Your task to perform on an android device: delete location history Image 0: 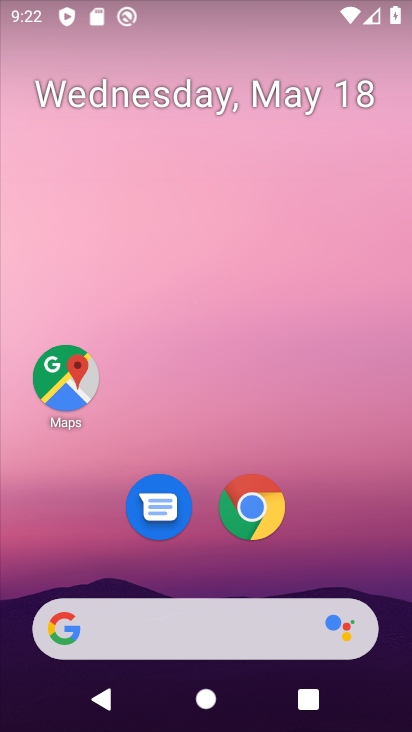
Step 0: drag from (331, 521) to (322, 87)
Your task to perform on an android device: delete location history Image 1: 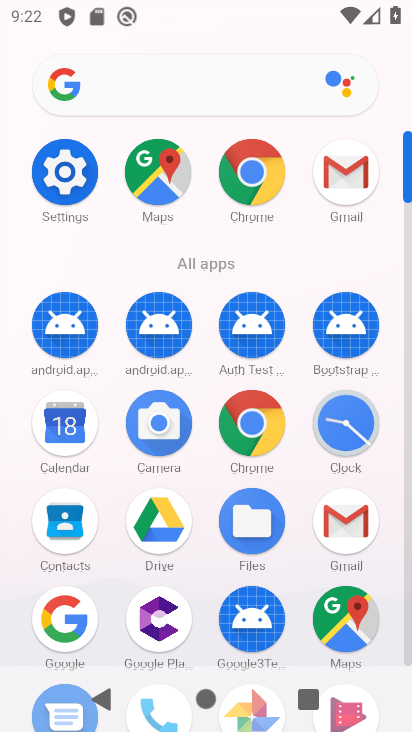
Step 1: click (123, 150)
Your task to perform on an android device: delete location history Image 2: 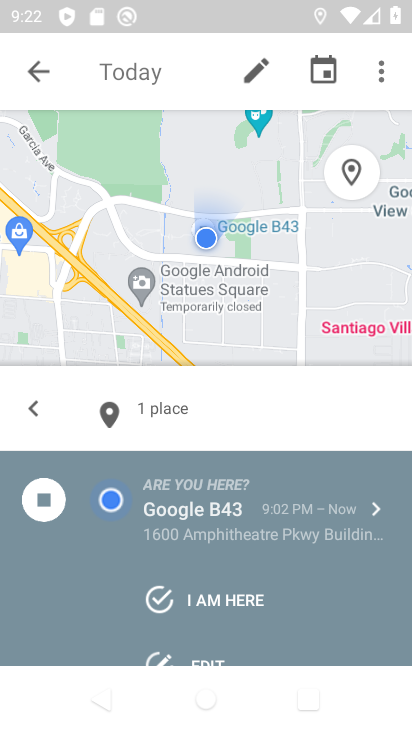
Step 2: click (44, 66)
Your task to perform on an android device: delete location history Image 3: 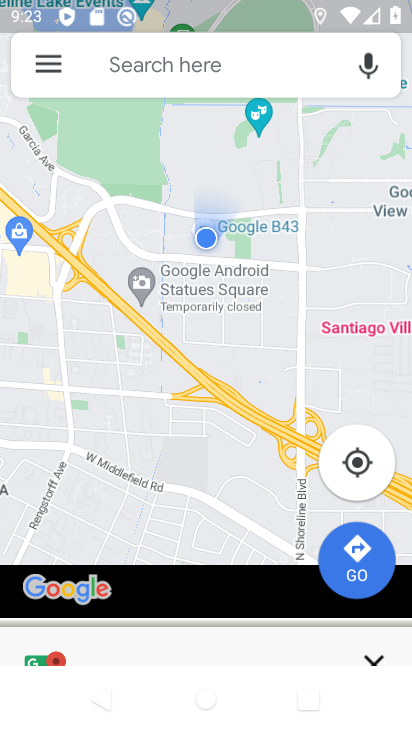
Step 3: click (44, 66)
Your task to perform on an android device: delete location history Image 4: 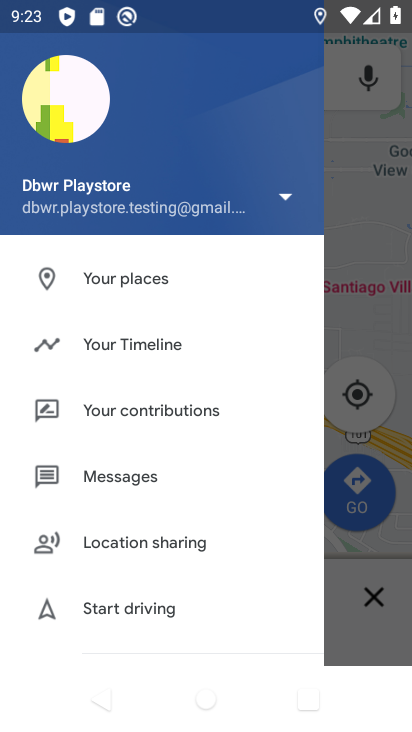
Step 4: drag from (163, 613) to (198, 36)
Your task to perform on an android device: delete location history Image 5: 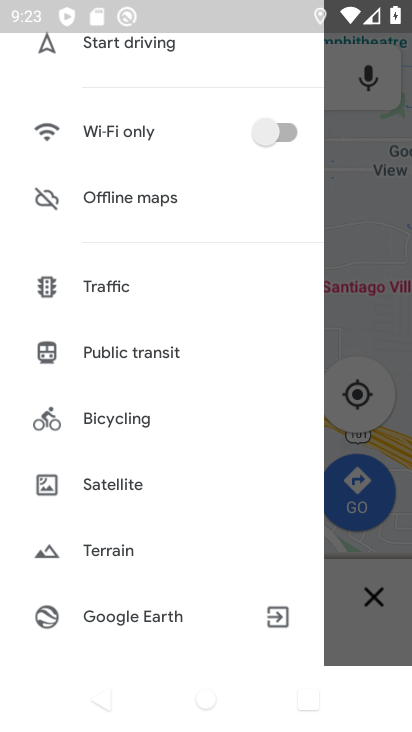
Step 5: drag from (121, 540) to (168, 71)
Your task to perform on an android device: delete location history Image 6: 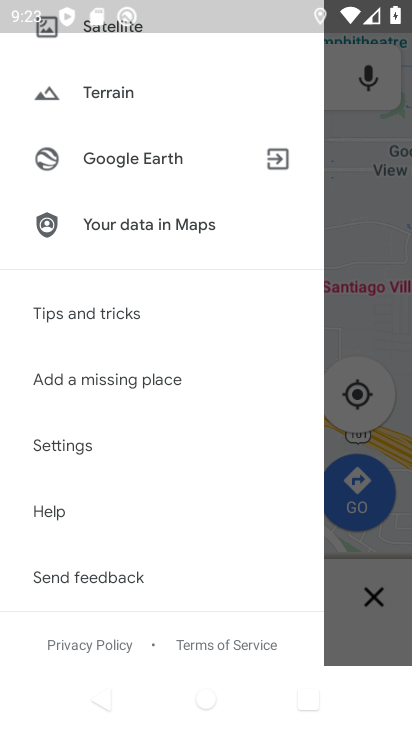
Step 6: click (93, 445)
Your task to perform on an android device: delete location history Image 7: 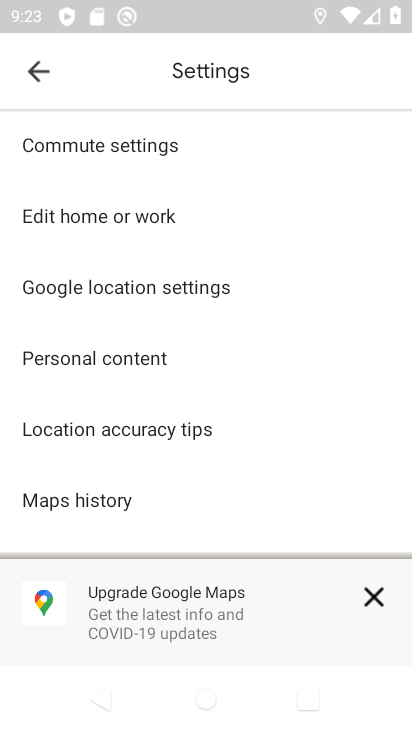
Step 7: click (84, 492)
Your task to perform on an android device: delete location history Image 8: 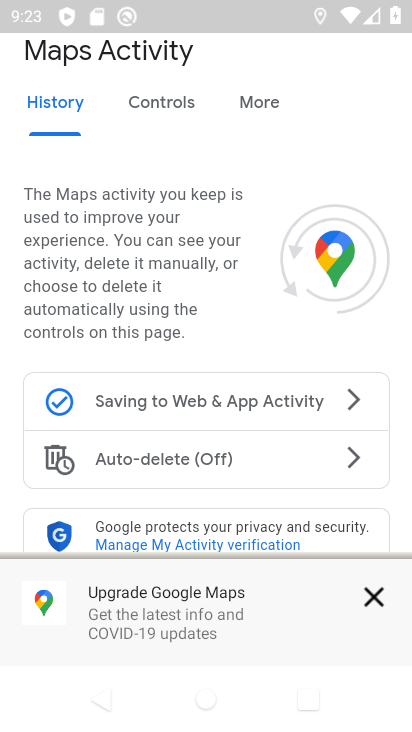
Step 8: drag from (261, 461) to (324, 24)
Your task to perform on an android device: delete location history Image 9: 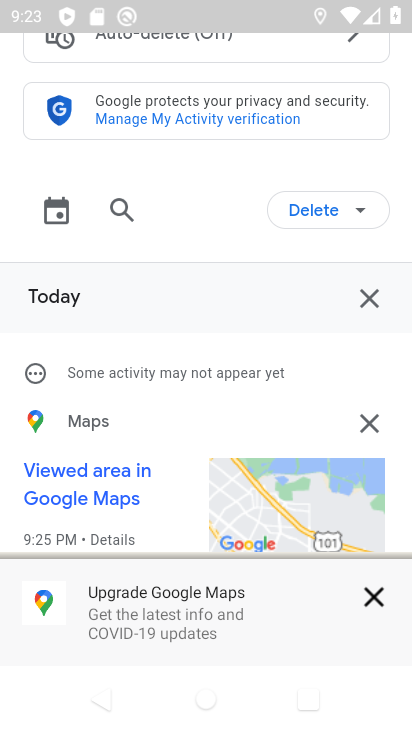
Step 9: click (339, 209)
Your task to perform on an android device: delete location history Image 10: 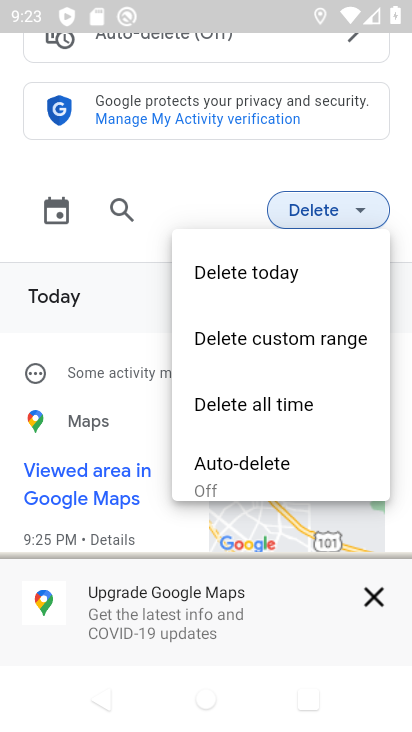
Step 10: click (372, 215)
Your task to perform on an android device: delete location history Image 11: 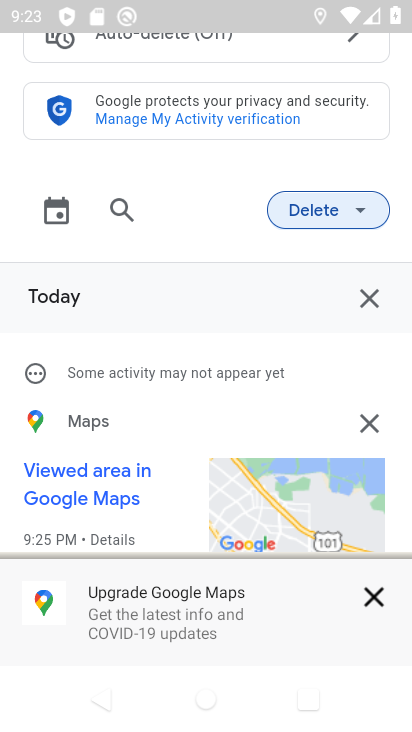
Step 11: click (371, 215)
Your task to perform on an android device: delete location history Image 12: 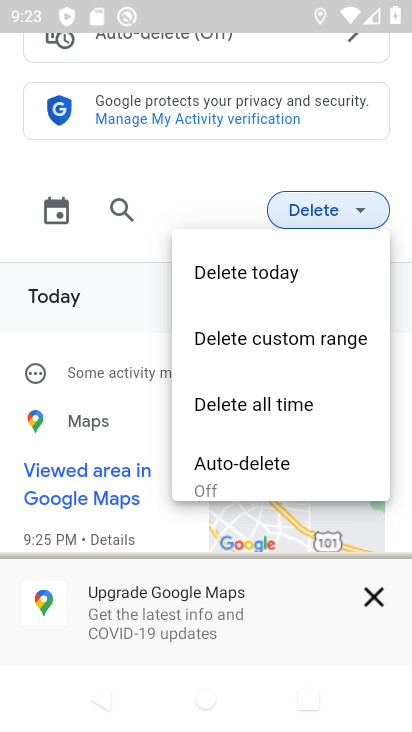
Step 12: drag from (273, 471) to (290, 350)
Your task to perform on an android device: delete location history Image 13: 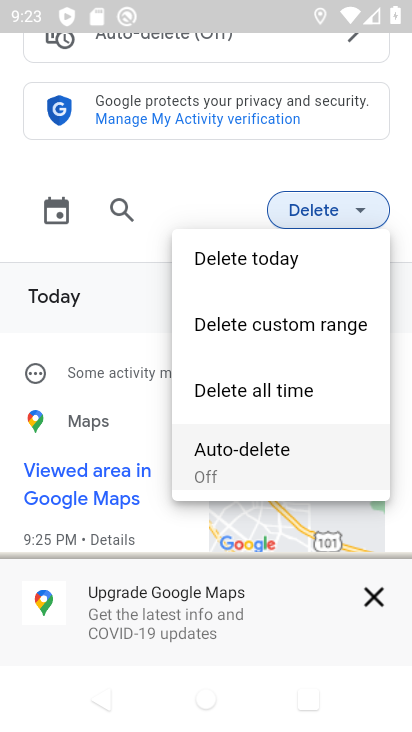
Step 13: click (278, 386)
Your task to perform on an android device: delete location history Image 14: 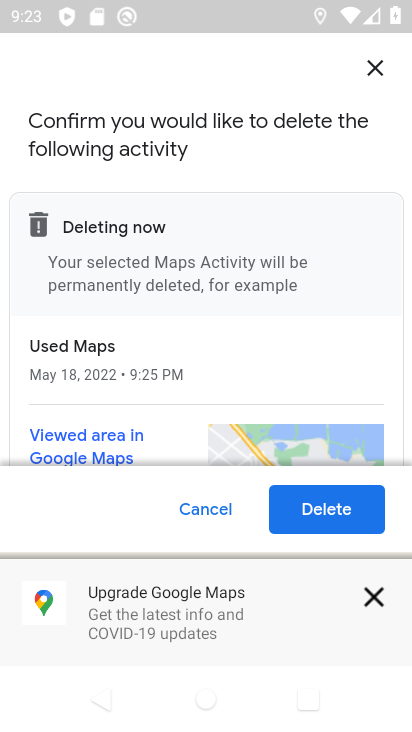
Step 14: click (351, 499)
Your task to perform on an android device: delete location history Image 15: 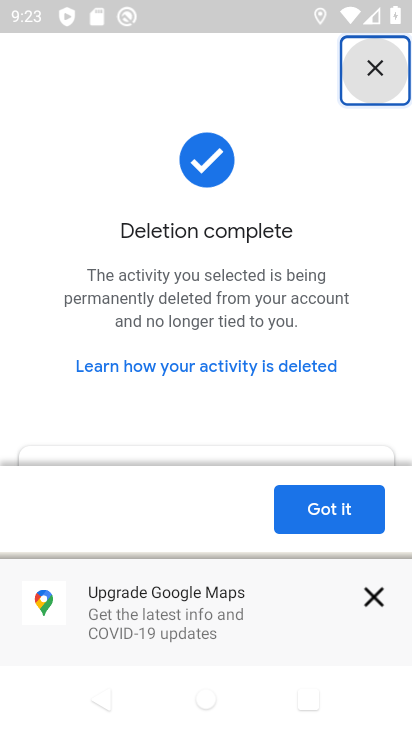
Step 15: task complete